Your task to perform on an android device: find photos in the google photos app Image 0: 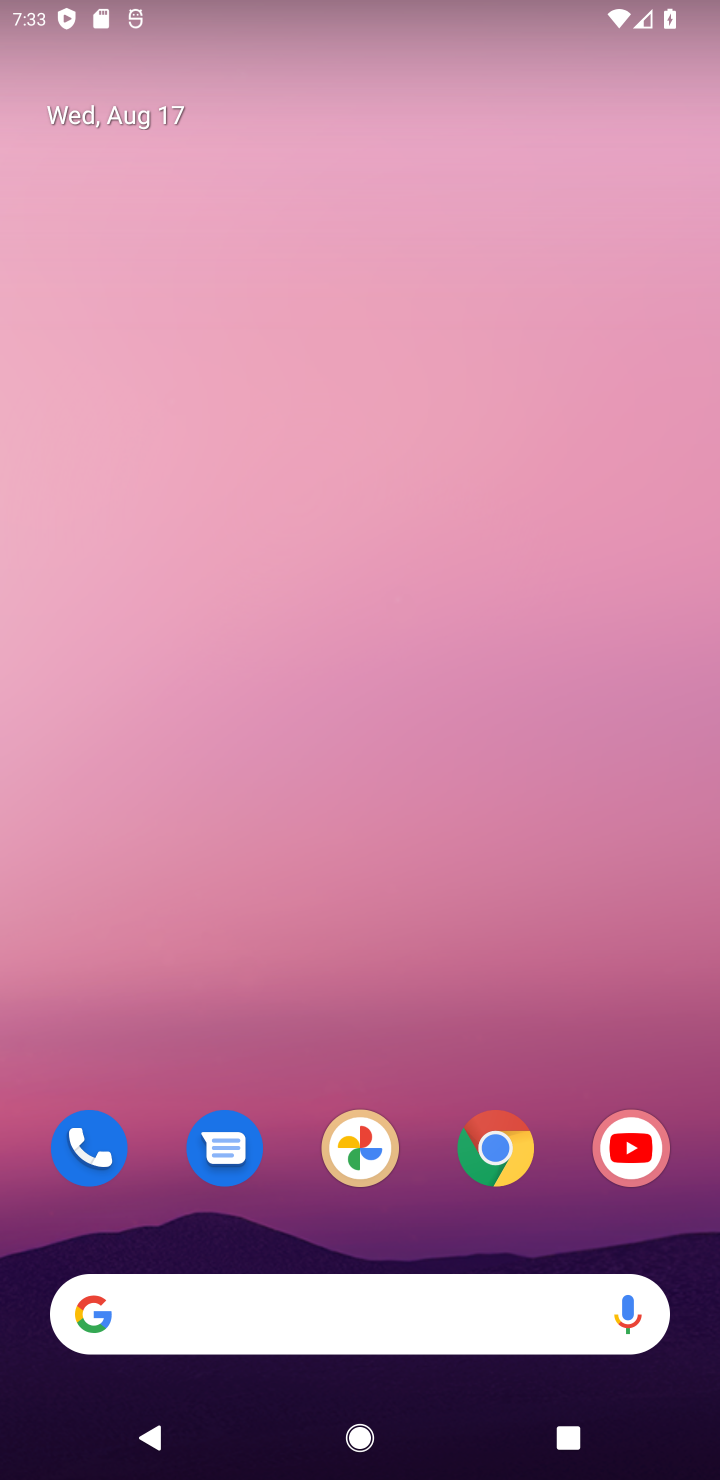
Step 0: drag from (296, 712) to (293, 310)
Your task to perform on an android device: find photos in the google photos app Image 1: 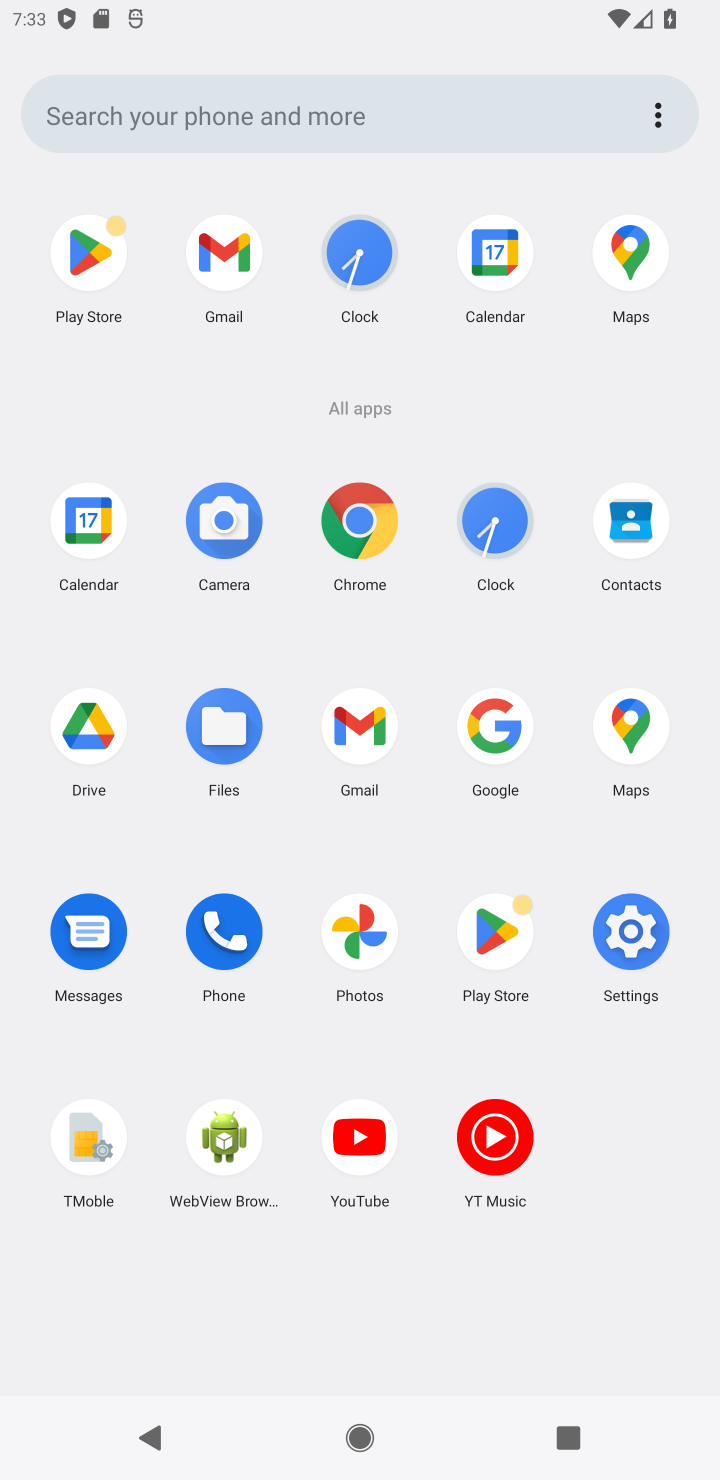
Step 1: click (372, 957)
Your task to perform on an android device: find photos in the google photos app Image 2: 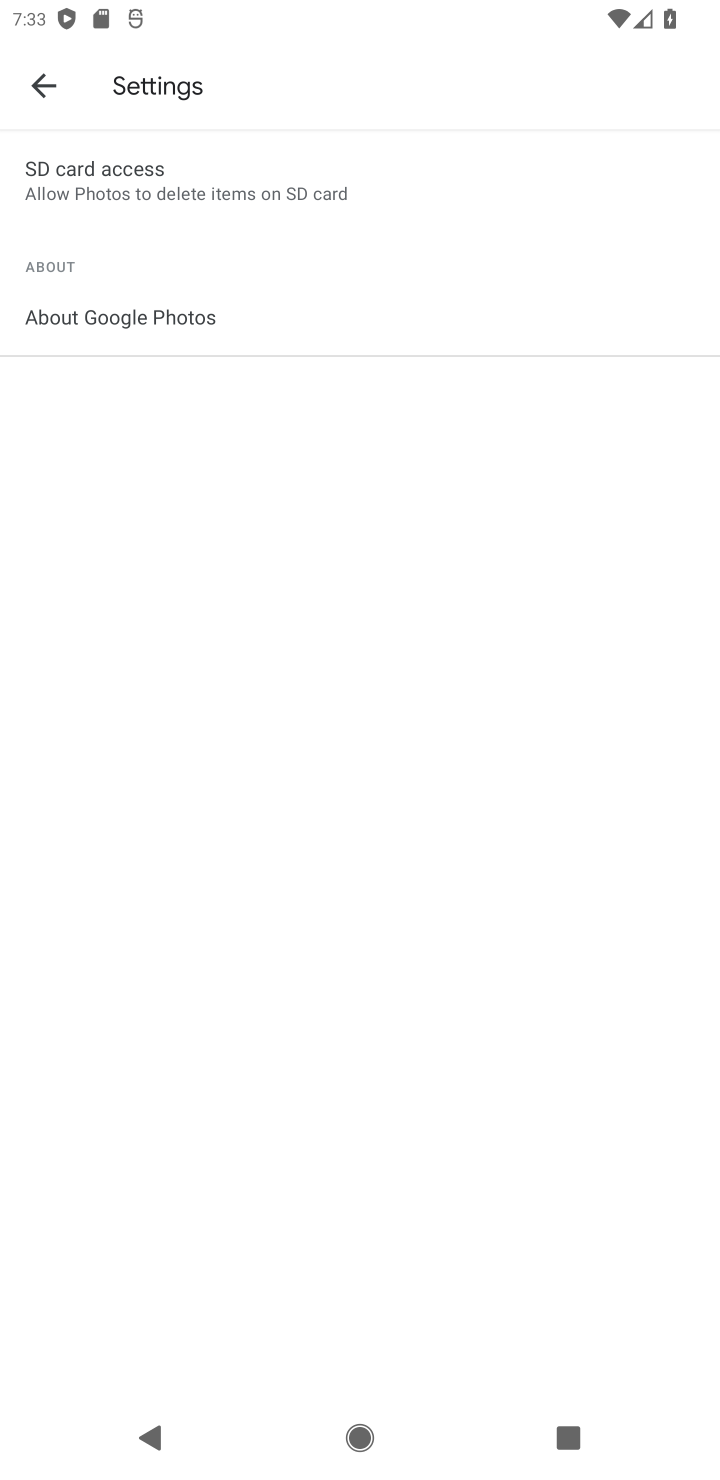
Step 2: click (39, 88)
Your task to perform on an android device: find photos in the google photos app Image 3: 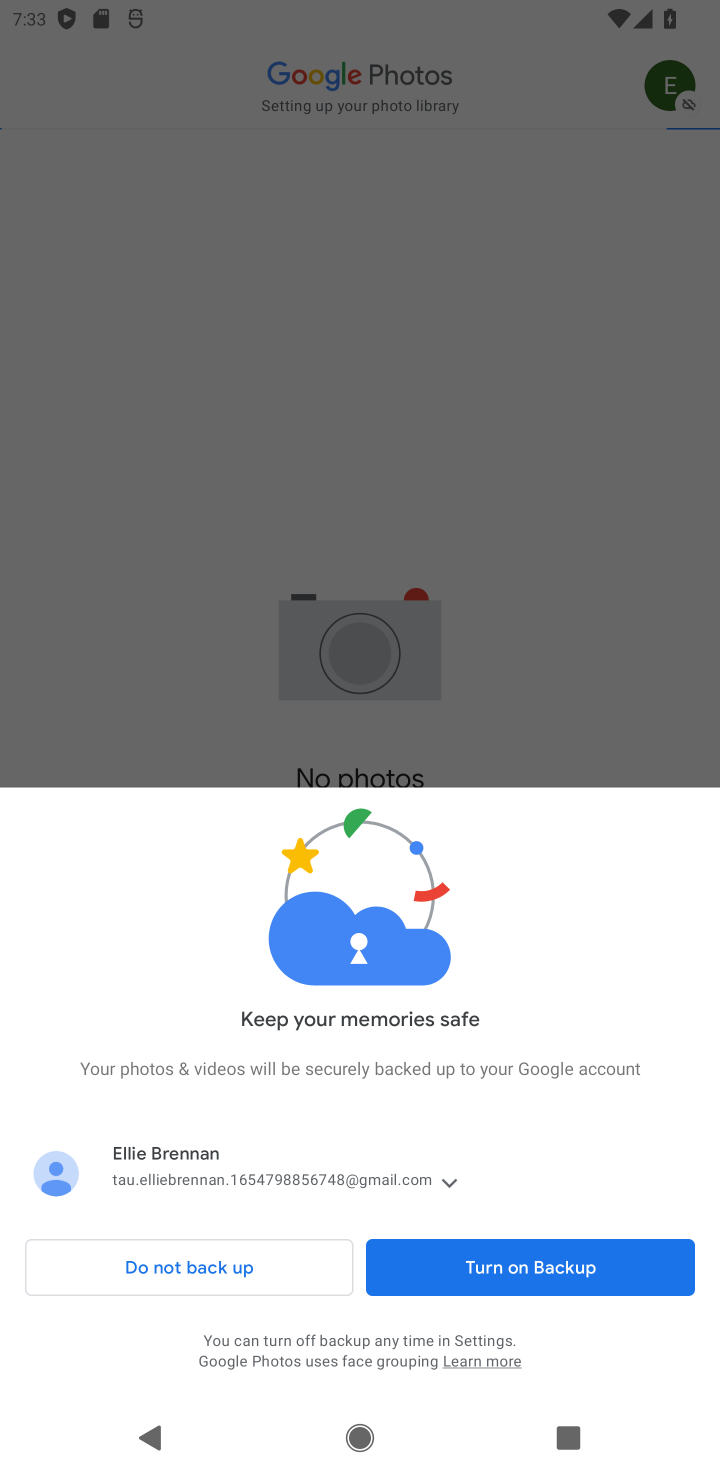
Step 3: click (460, 1267)
Your task to perform on an android device: find photos in the google photos app Image 4: 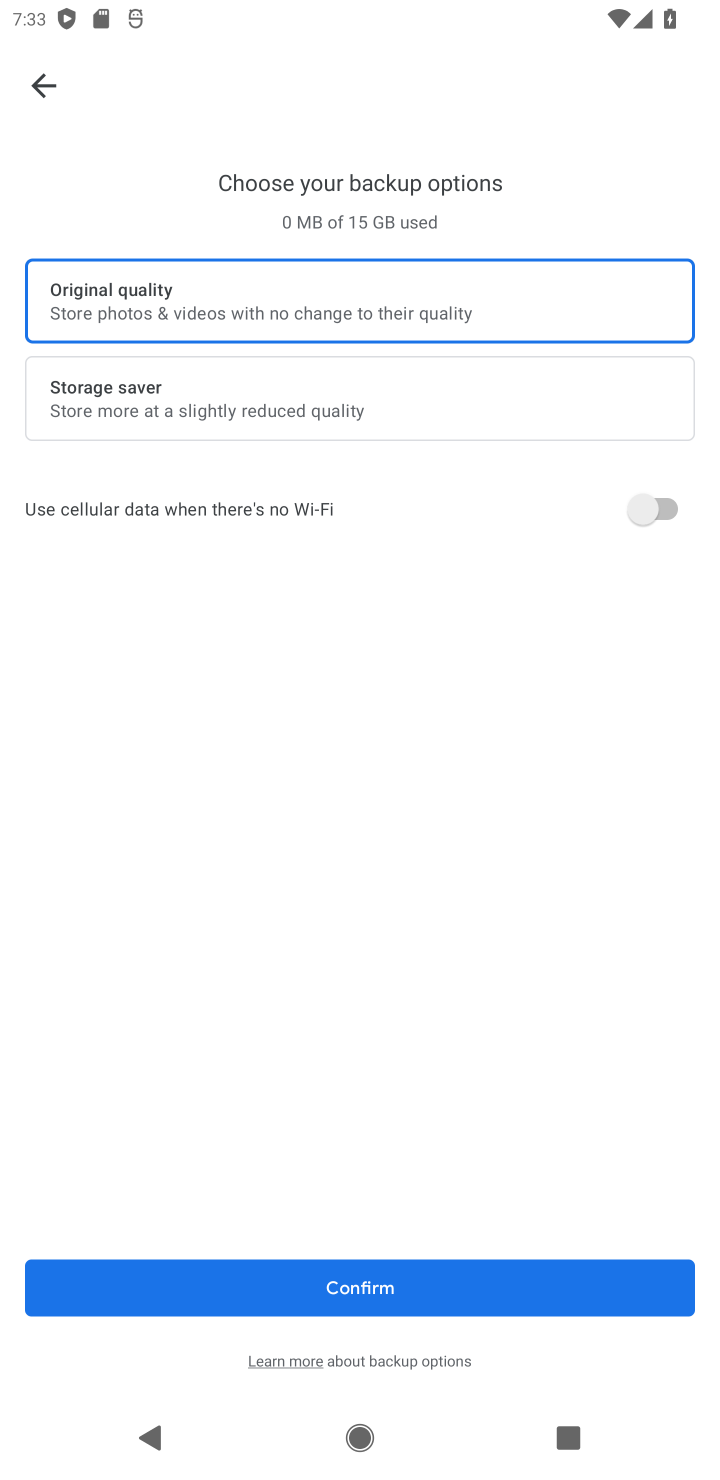
Step 4: click (344, 1278)
Your task to perform on an android device: find photos in the google photos app Image 5: 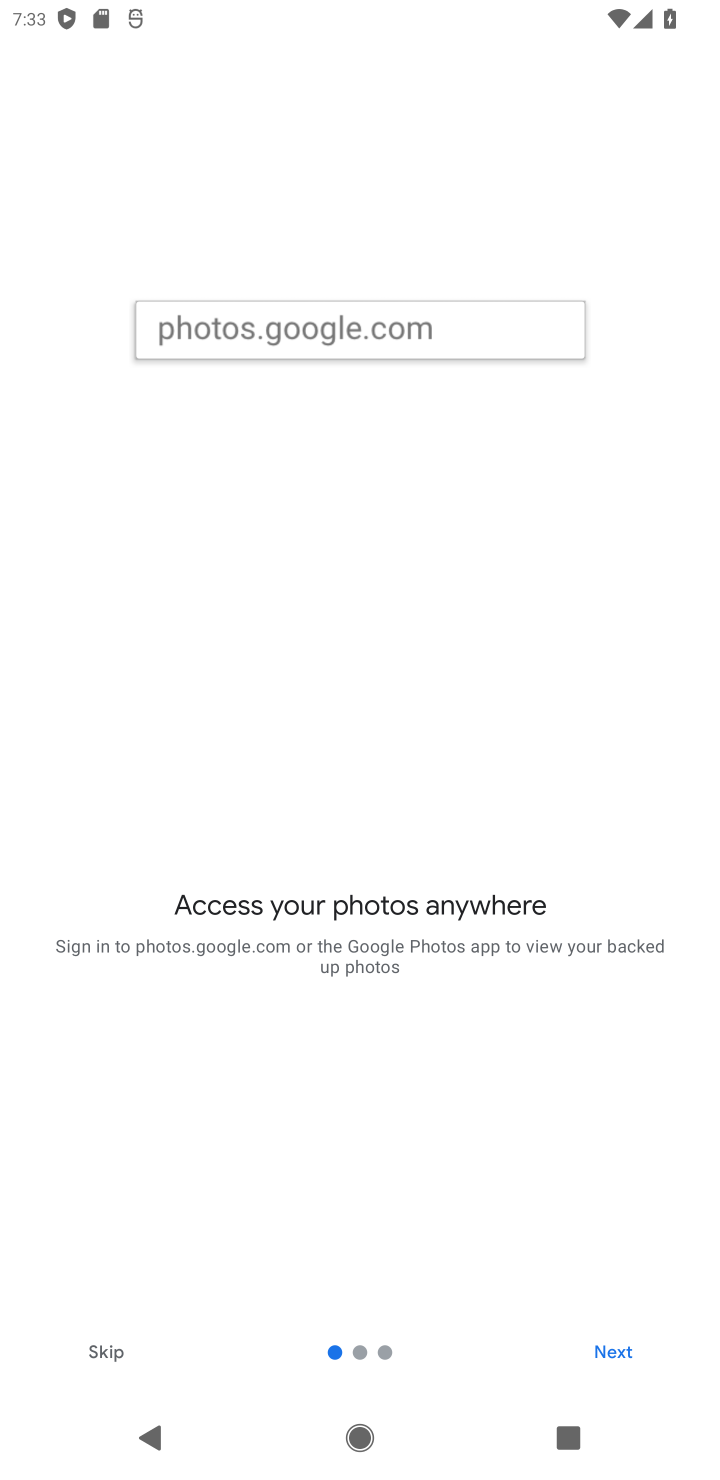
Step 5: click (588, 1341)
Your task to perform on an android device: find photos in the google photos app Image 6: 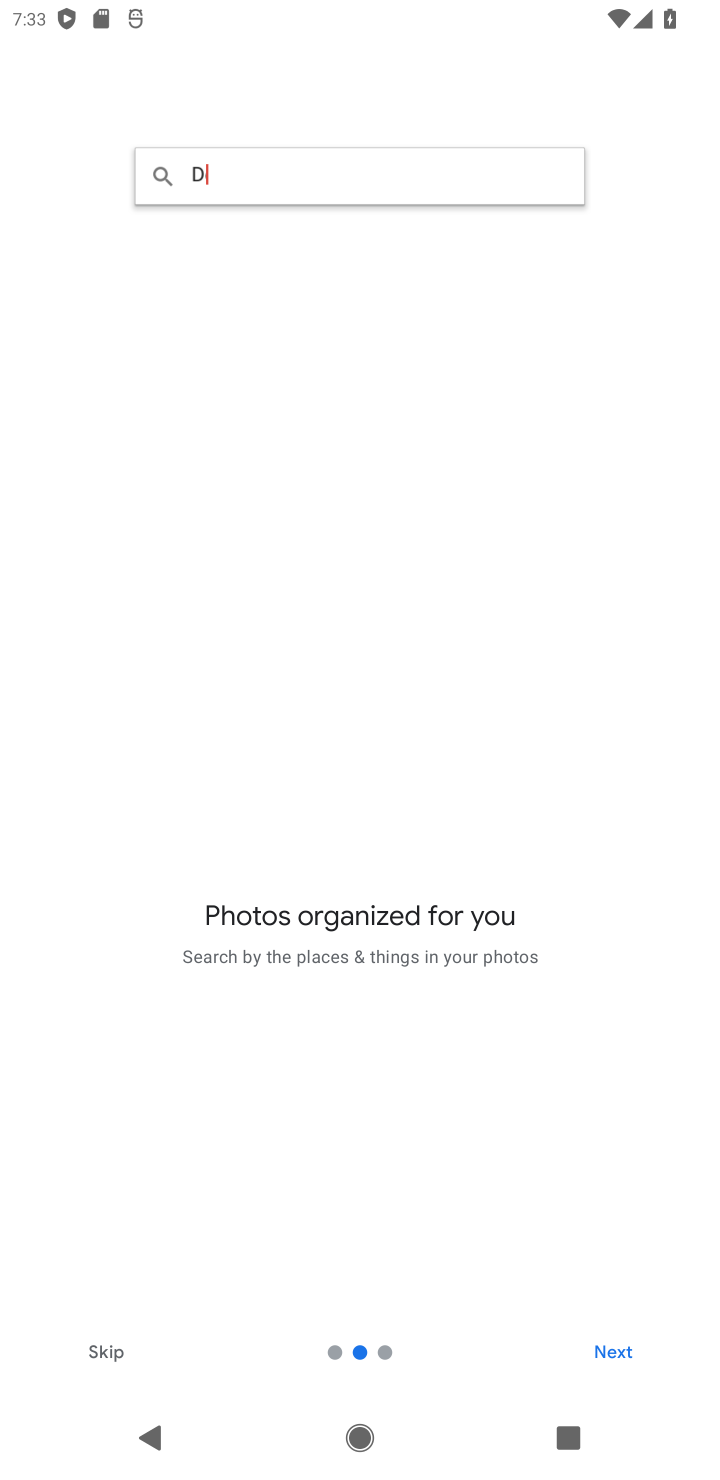
Step 6: click (599, 1361)
Your task to perform on an android device: find photos in the google photos app Image 7: 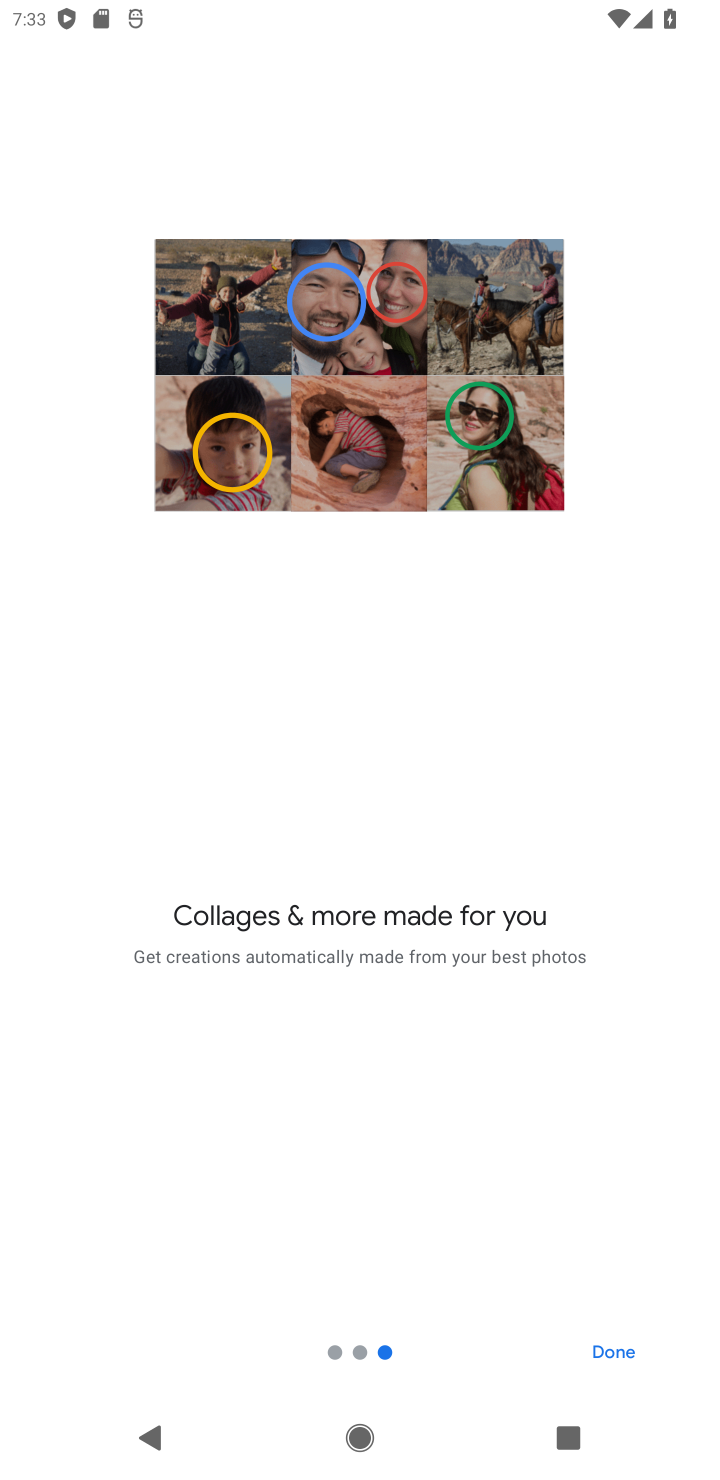
Step 7: click (599, 1361)
Your task to perform on an android device: find photos in the google photos app Image 8: 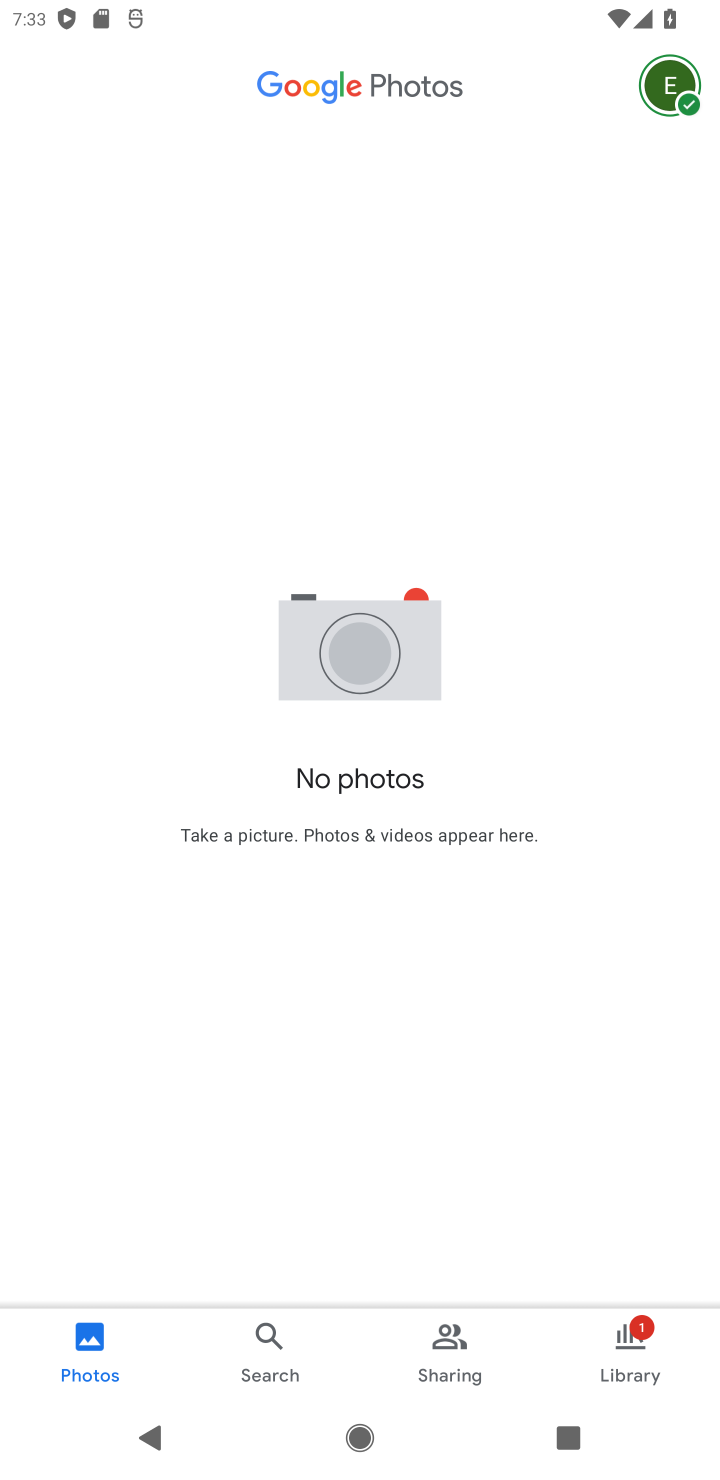
Step 8: task complete